Your task to perform on an android device: turn off data saver in the chrome app Image 0: 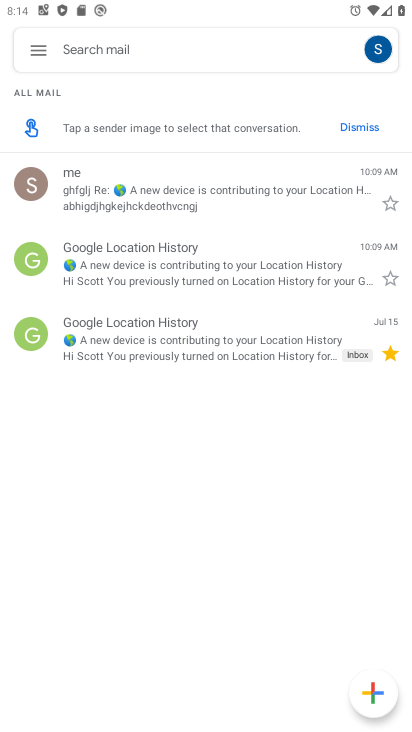
Step 0: press home button
Your task to perform on an android device: turn off data saver in the chrome app Image 1: 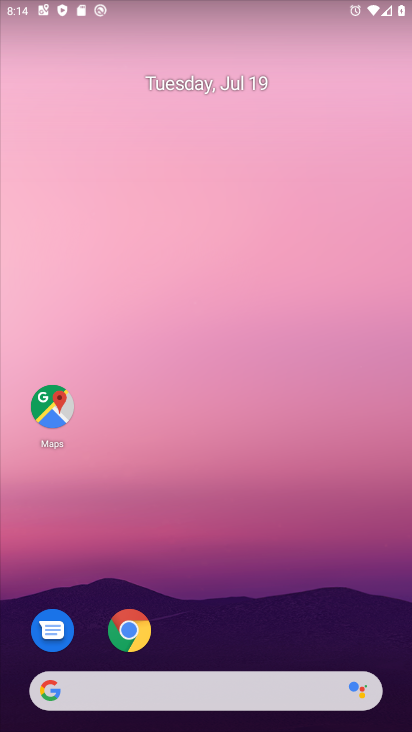
Step 1: drag from (346, 617) to (173, 10)
Your task to perform on an android device: turn off data saver in the chrome app Image 2: 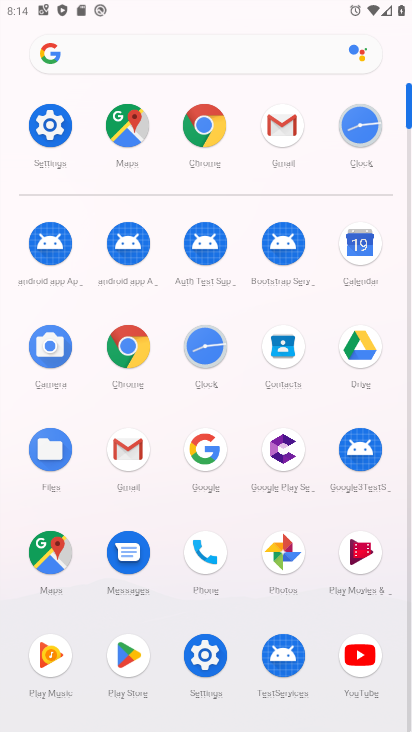
Step 2: click (201, 124)
Your task to perform on an android device: turn off data saver in the chrome app Image 3: 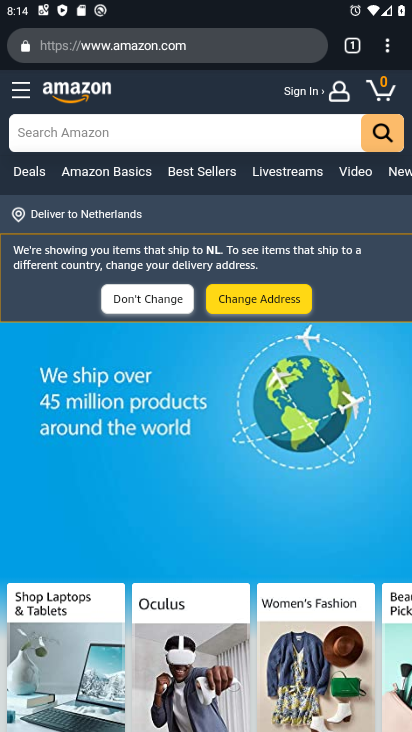
Step 3: drag from (393, 40) to (234, 556)
Your task to perform on an android device: turn off data saver in the chrome app Image 4: 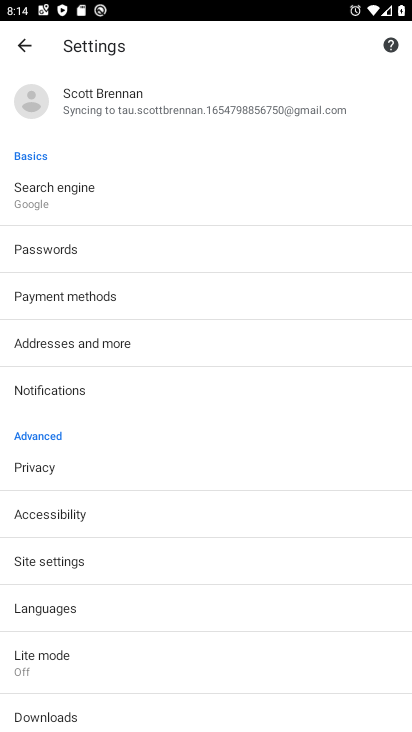
Step 4: click (63, 659)
Your task to perform on an android device: turn off data saver in the chrome app Image 5: 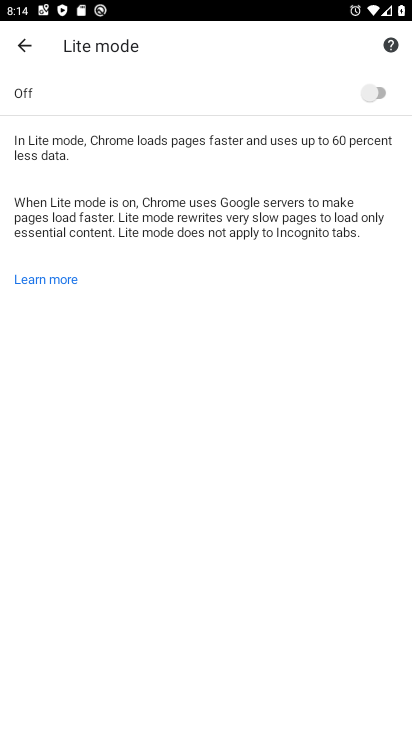
Step 5: task complete